Your task to perform on an android device: toggle notifications settings in the gmail app Image 0: 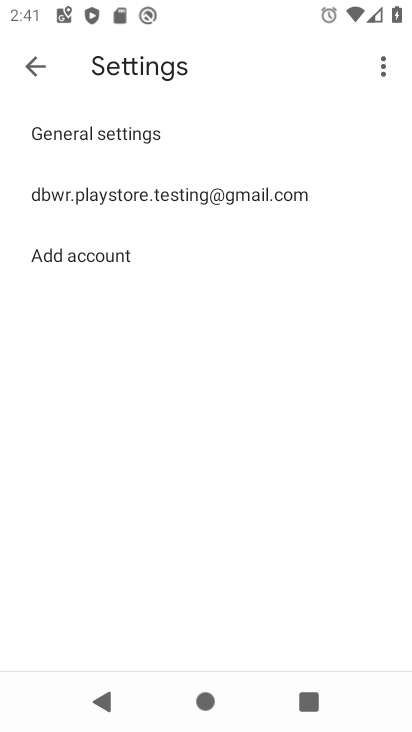
Step 0: click (228, 188)
Your task to perform on an android device: toggle notifications settings in the gmail app Image 1: 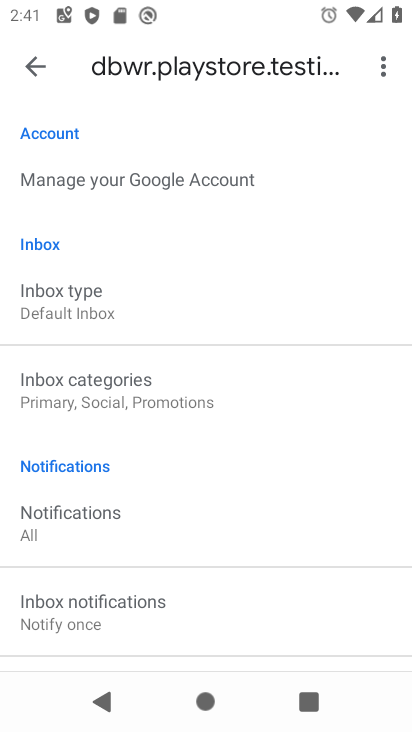
Step 1: drag from (164, 525) to (244, 67)
Your task to perform on an android device: toggle notifications settings in the gmail app Image 2: 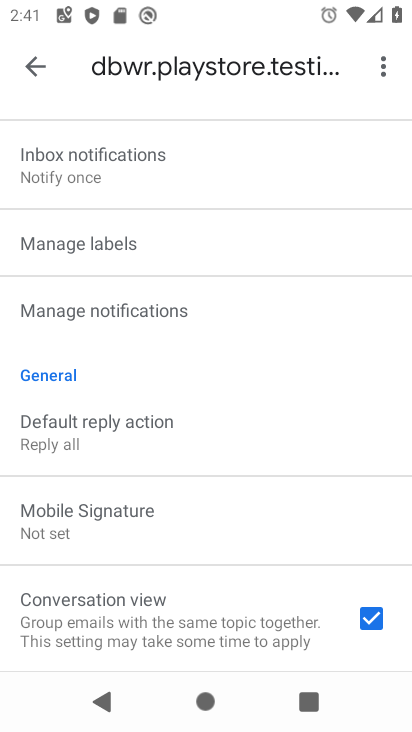
Step 2: click (160, 313)
Your task to perform on an android device: toggle notifications settings in the gmail app Image 3: 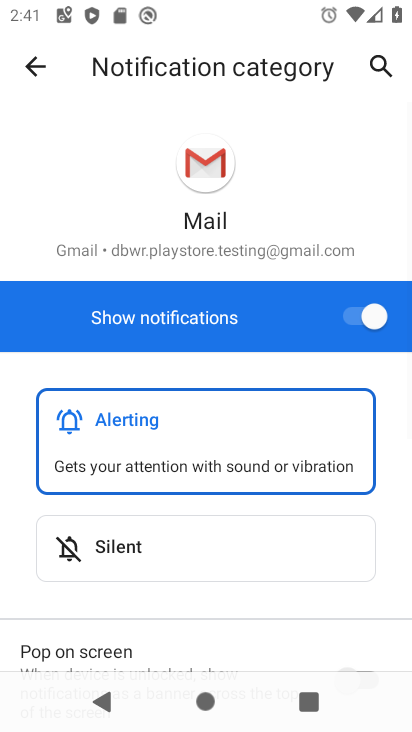
Step 3: click (359, 313)
Your task to perform on an android device: toggle notifications settings in the gmail app Image 4: 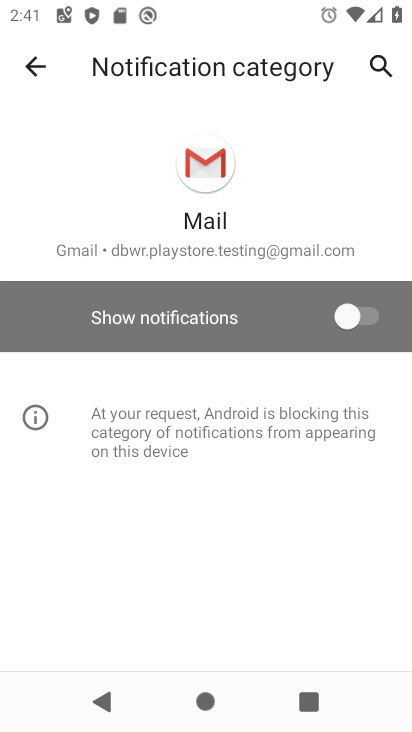
Step 4: task complete